Your task to perform on an android device: change your default location settings in chrome Image 0: 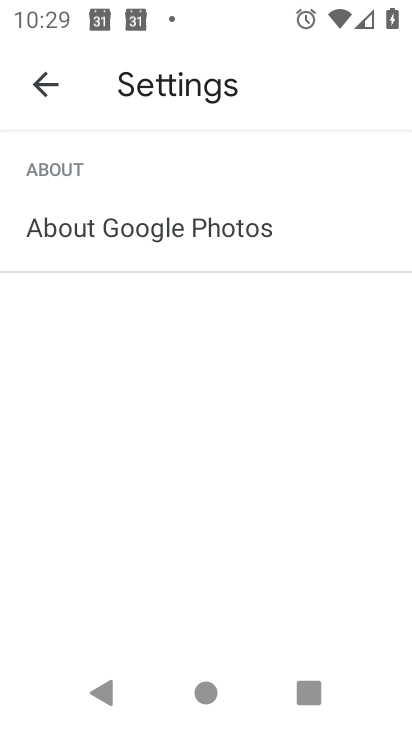
Step 0: press home button
Your task to perform on an android device: change your default location settings in chrome Image 1: 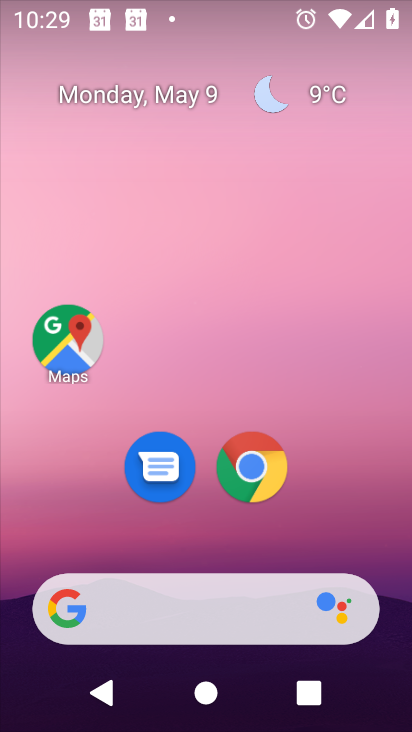
Step 1: click (257, 463)
Your task to perform on an android device: change your default location settings in chrome Image 2: 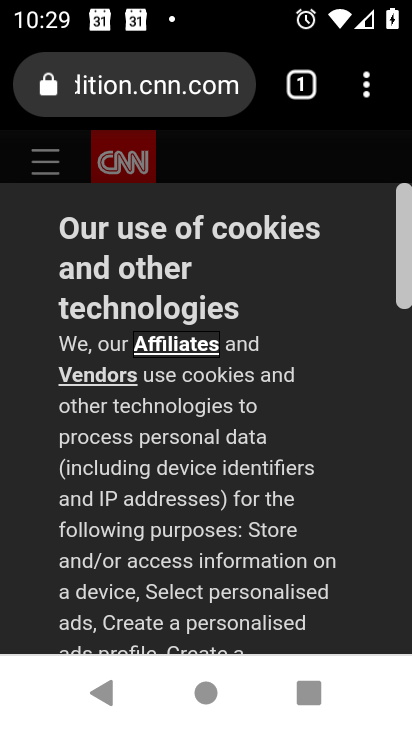
Step 2: click (371, 87)
Your task to perform on an android device: change your default location settings in chrome Image 3: 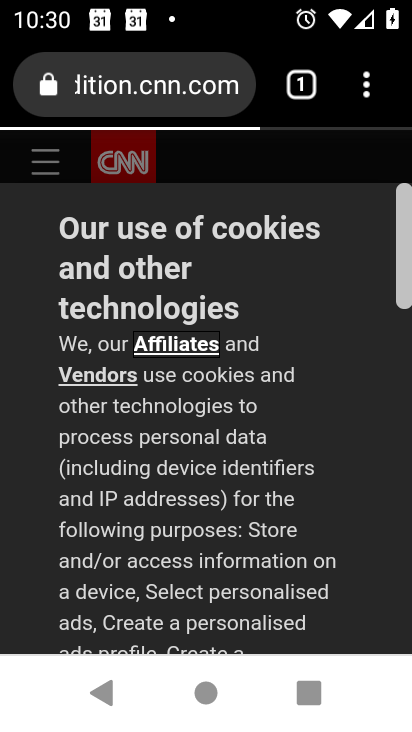
Step 3: drag from (365, 90) to (114, 524)
Your task to perform on an android device: change your default location settings in chrome Image 4: 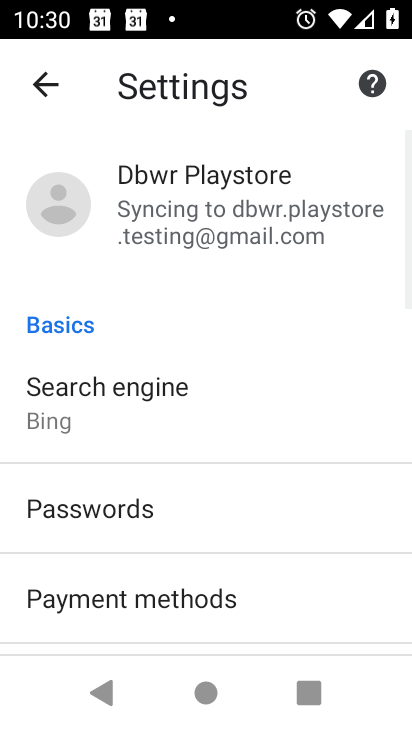
Step 4: drag from (174, 559) to (166, 115)
Your task to perform on an android device: change your default location settings in chrome Image 5: 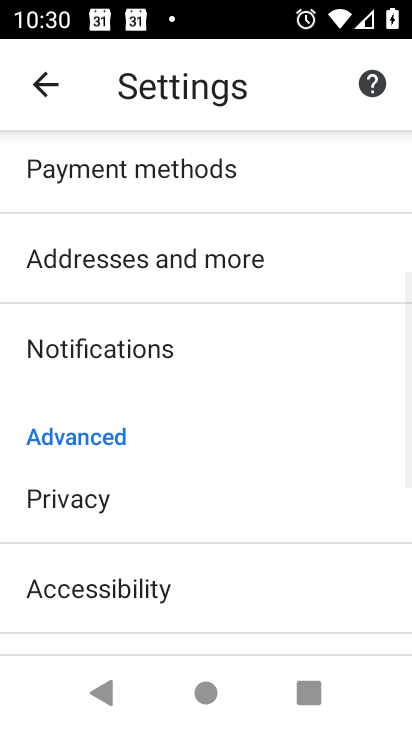
Step 5: drag from (147, 497) to (135, 165)
Your task to perform on an android device: change your default location settings in chrome Image 6: 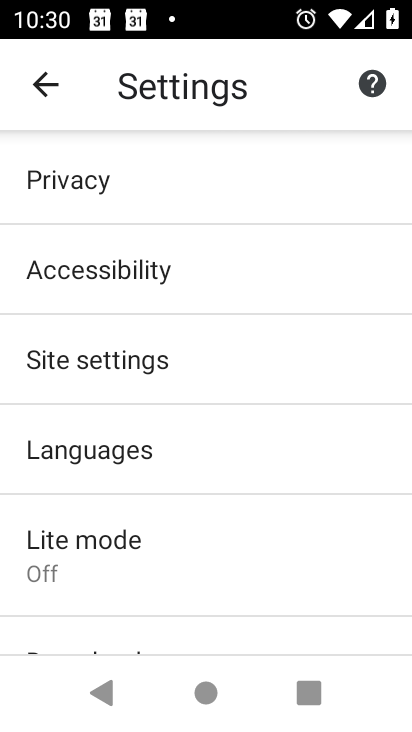
Step 6: click (94, 371)
Your task to perform on an android device: change your default location settings in chrome Image 7: 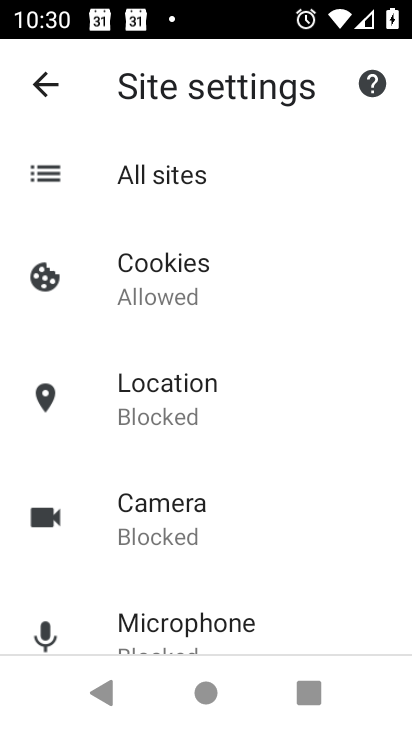
Step 7: click (150, 414)
Your task to perform on an android device: change your default location settings in chrome Image 8: 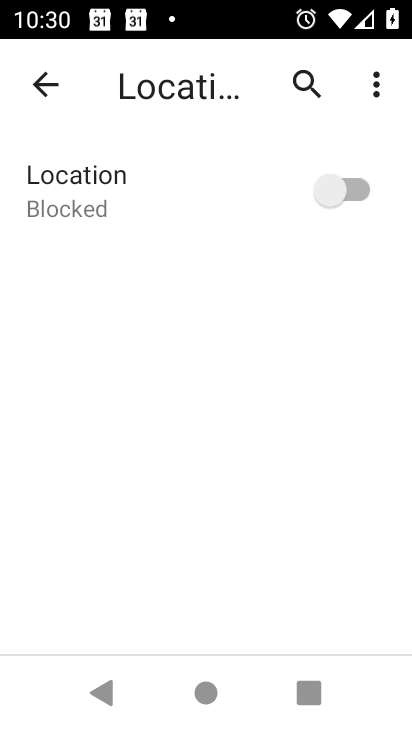
Step 8: click (331, 192)
Your task to perform on an android device: change your default location settings in chrome Image 9: 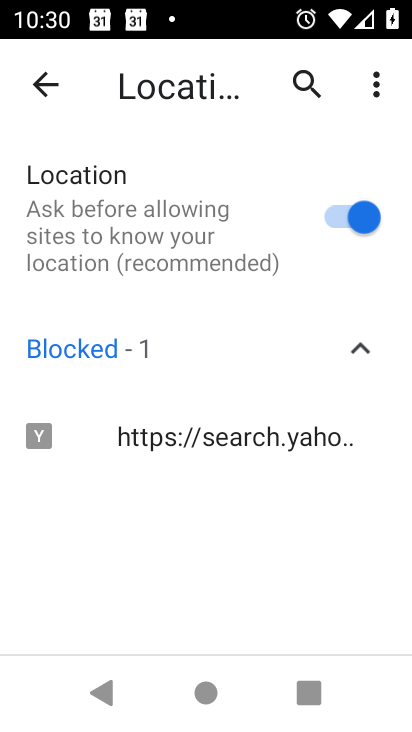
Step 9: task complete